Your task to perform on an android device: Open network settings Image 0: 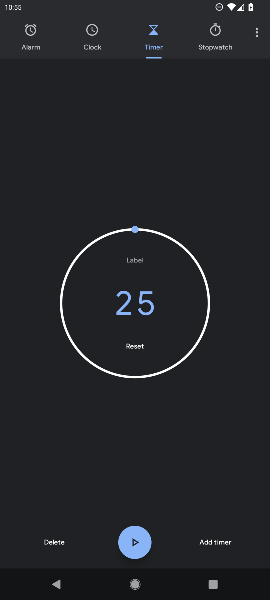
Step 0: press home button
Your task to perform on an android device: Open network settings Image 1: 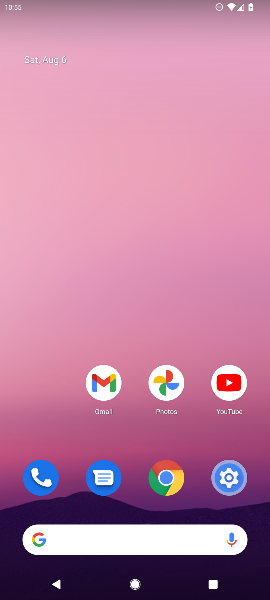
Step 1: drag from (110, 355) to (100, 59)
Your task to perform on an android device: Open network settings Image 2: 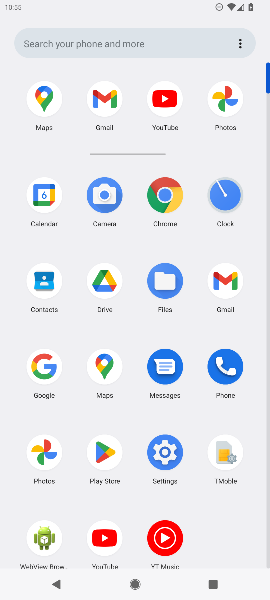
Step 2: click (164, 458)
Your task to perform on an android device: Open network settings Image 3: 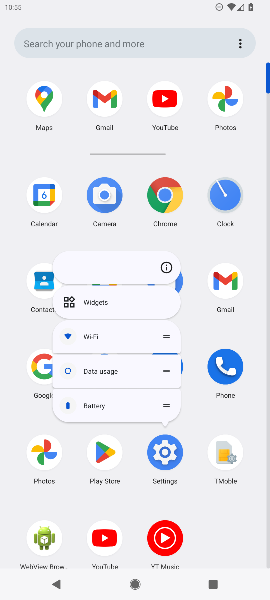
Step 3: click (157, 448)
Your task to perform on an android device: Open network settings Image 4: 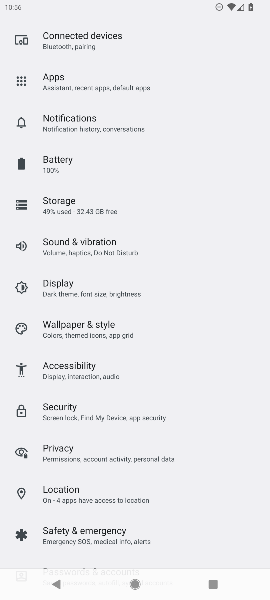
Step 4: drag from (67, 117) to (89, 361)
Your task to perform on an android device: Open network settings Image 5: 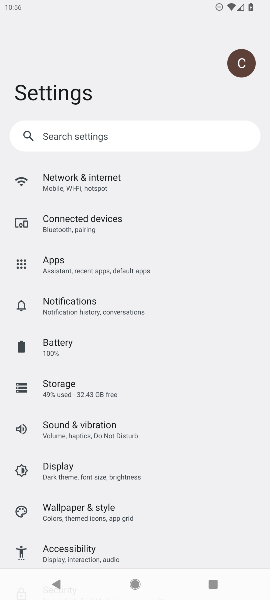
Step 5: click (79, 186)
Your task to perform on an android device: Open network settings Image 6: 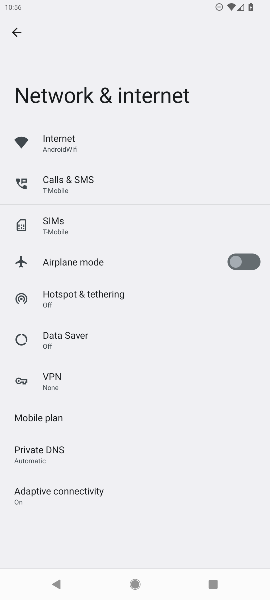
Step 6: task complete